Your task to perform on an android device: Open CNN.com Image 0: 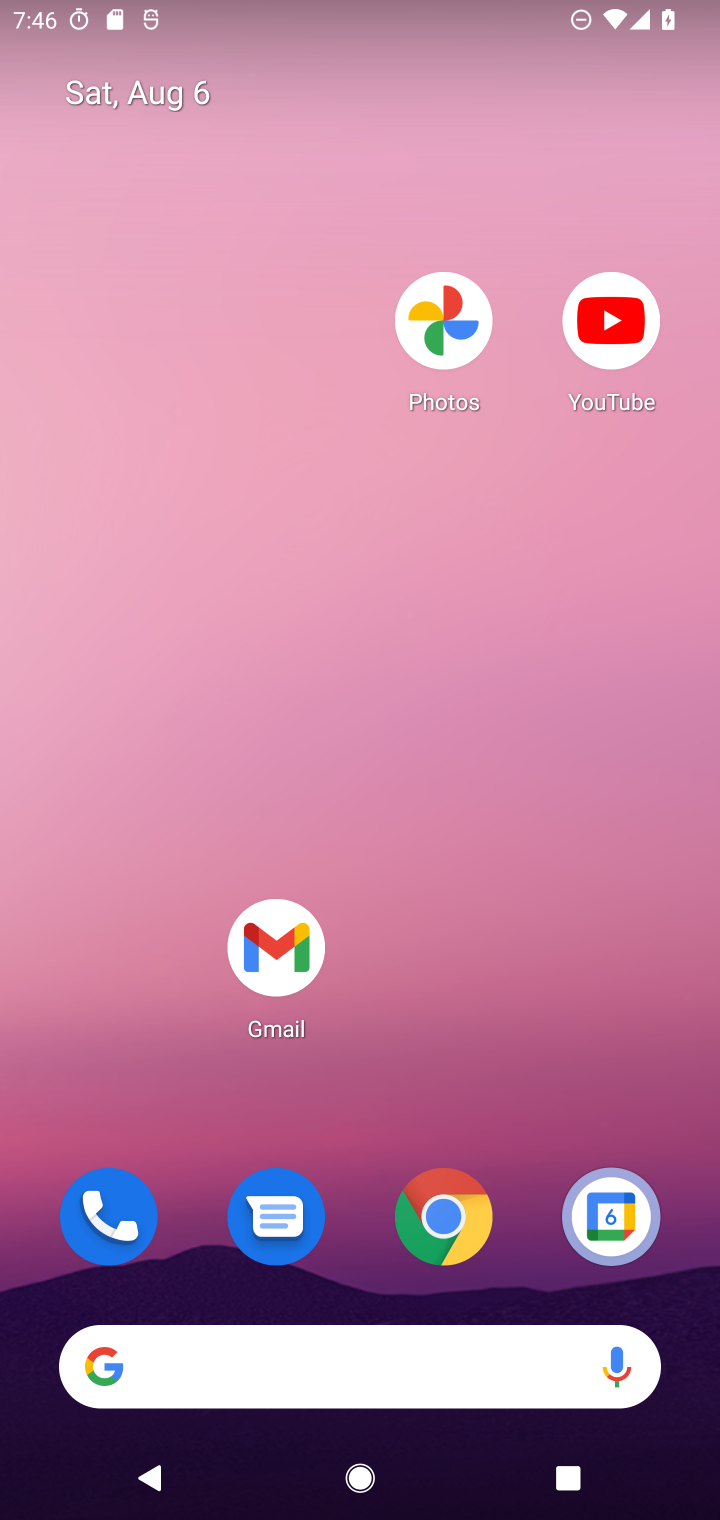
Step 0: drag from (469, 479) to (305, 41)
Your task to perform on an android device: Open CNN.com Image 1: 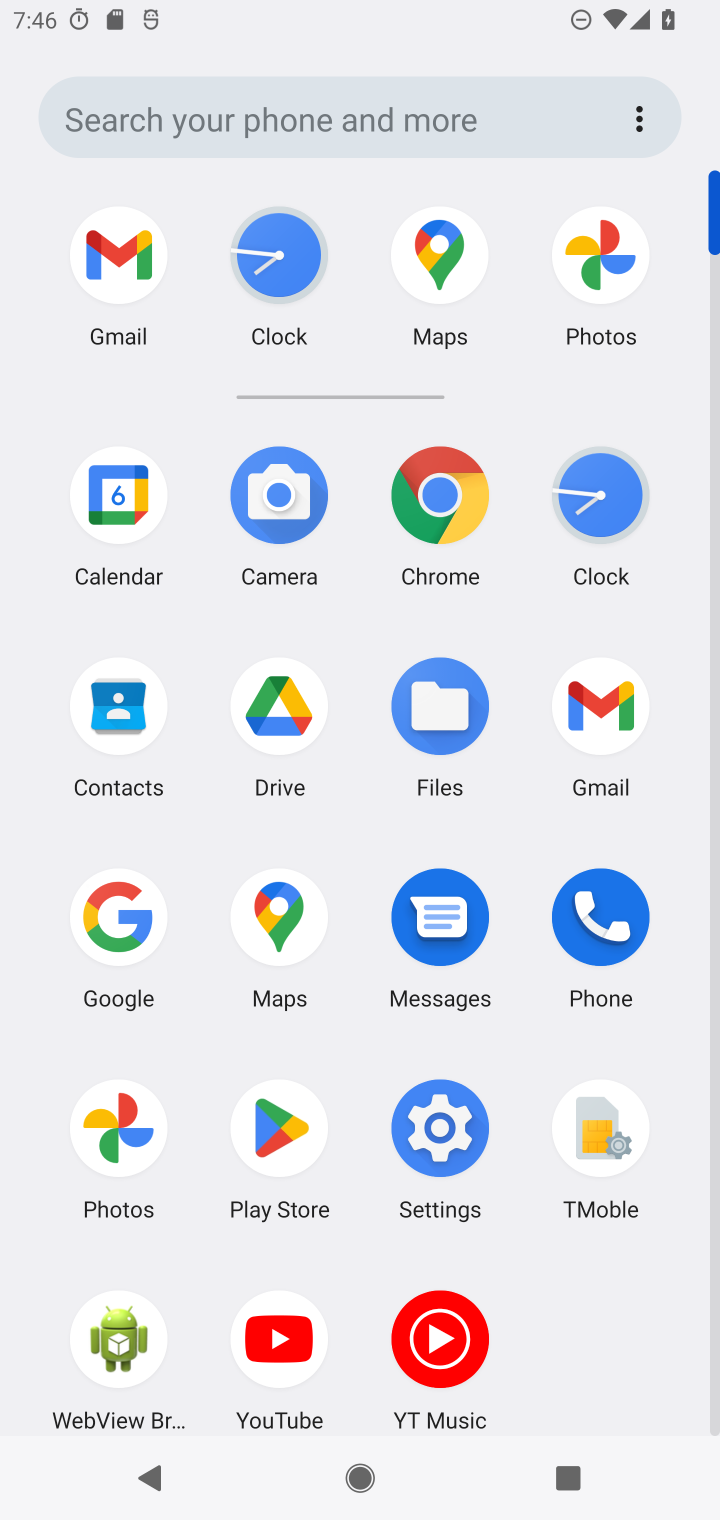
Step 1: click (441, 489)
Your task to perform on an android device: Open CNN.com Image 2: 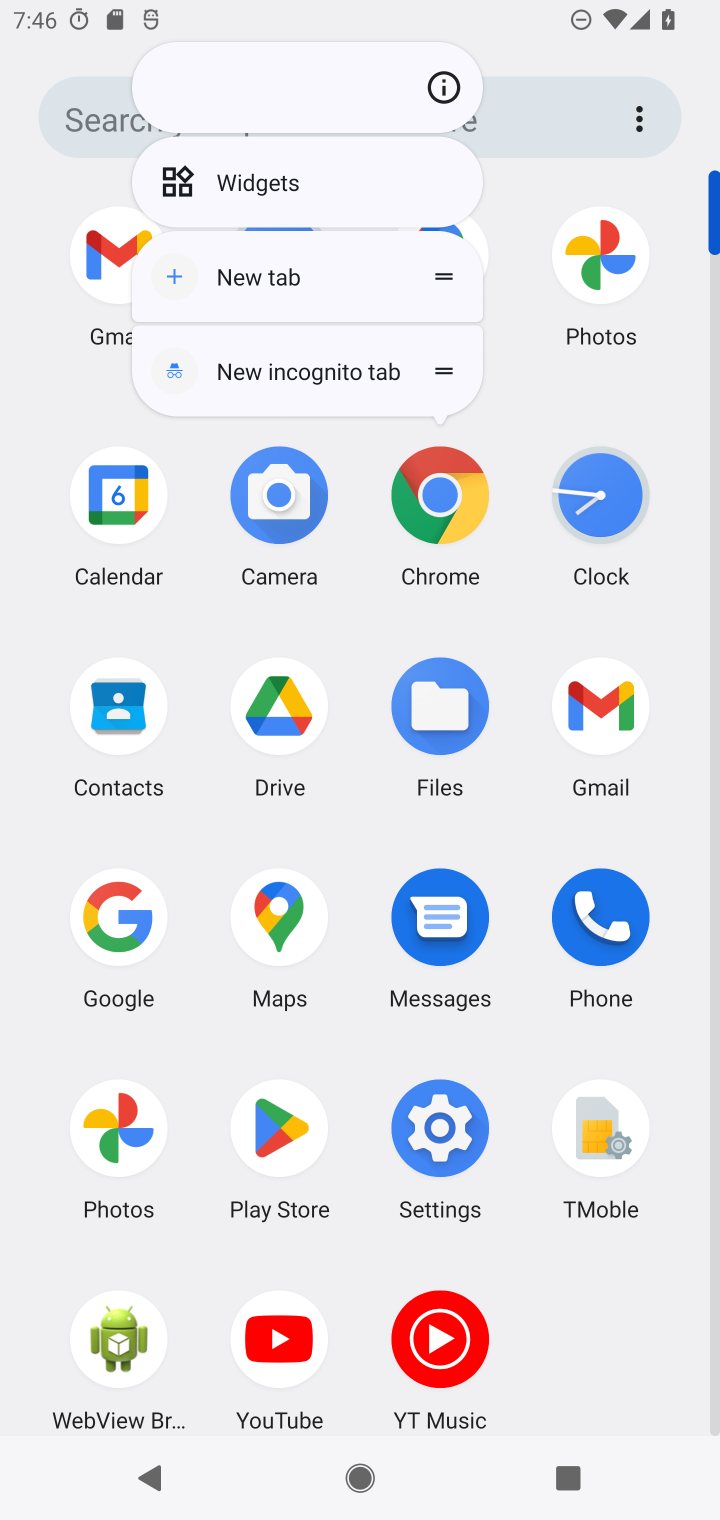
Step 2: click (444, 489)
Your task to perform on an android device: Open CNN.com Image 3: 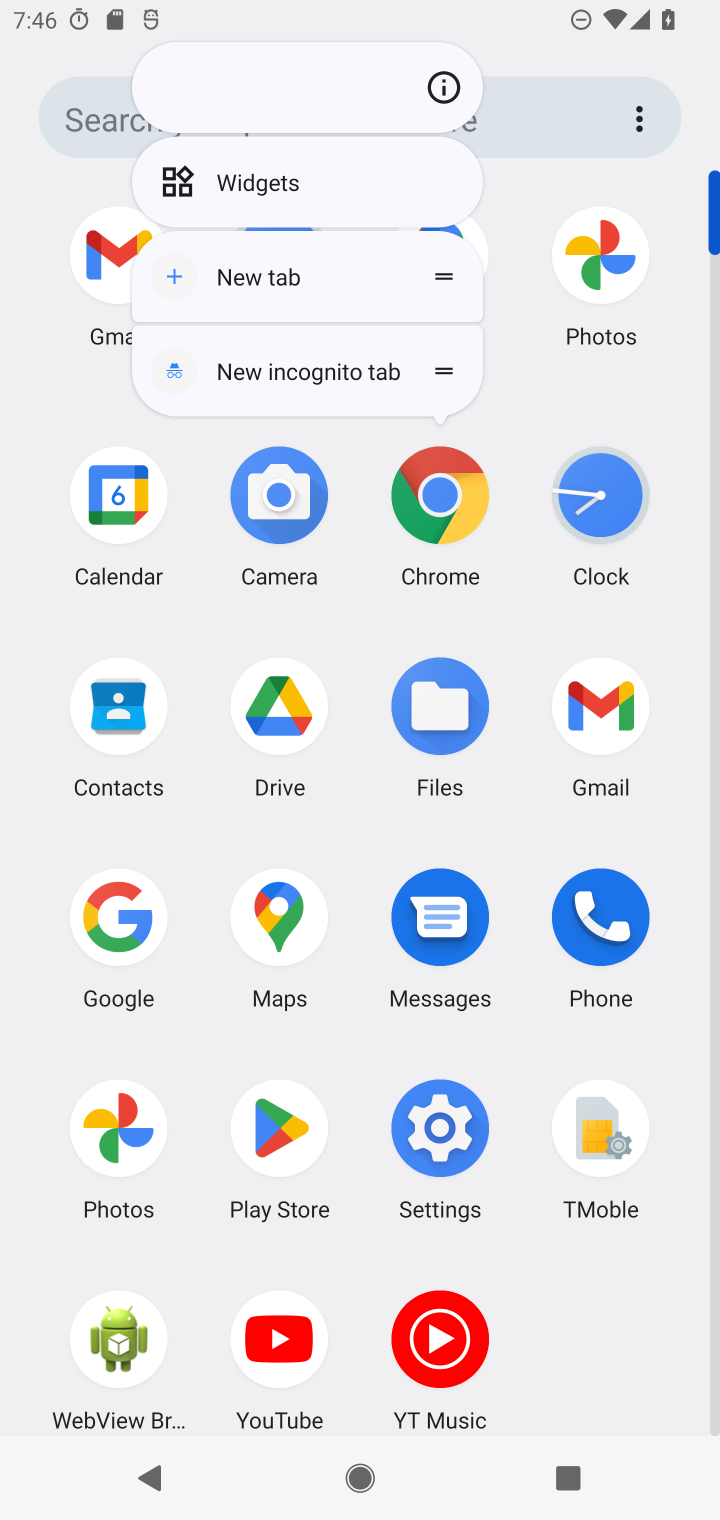
Step 3: click (434, 499)
Your task to perform on an android device: Open CNN.com Image 4: 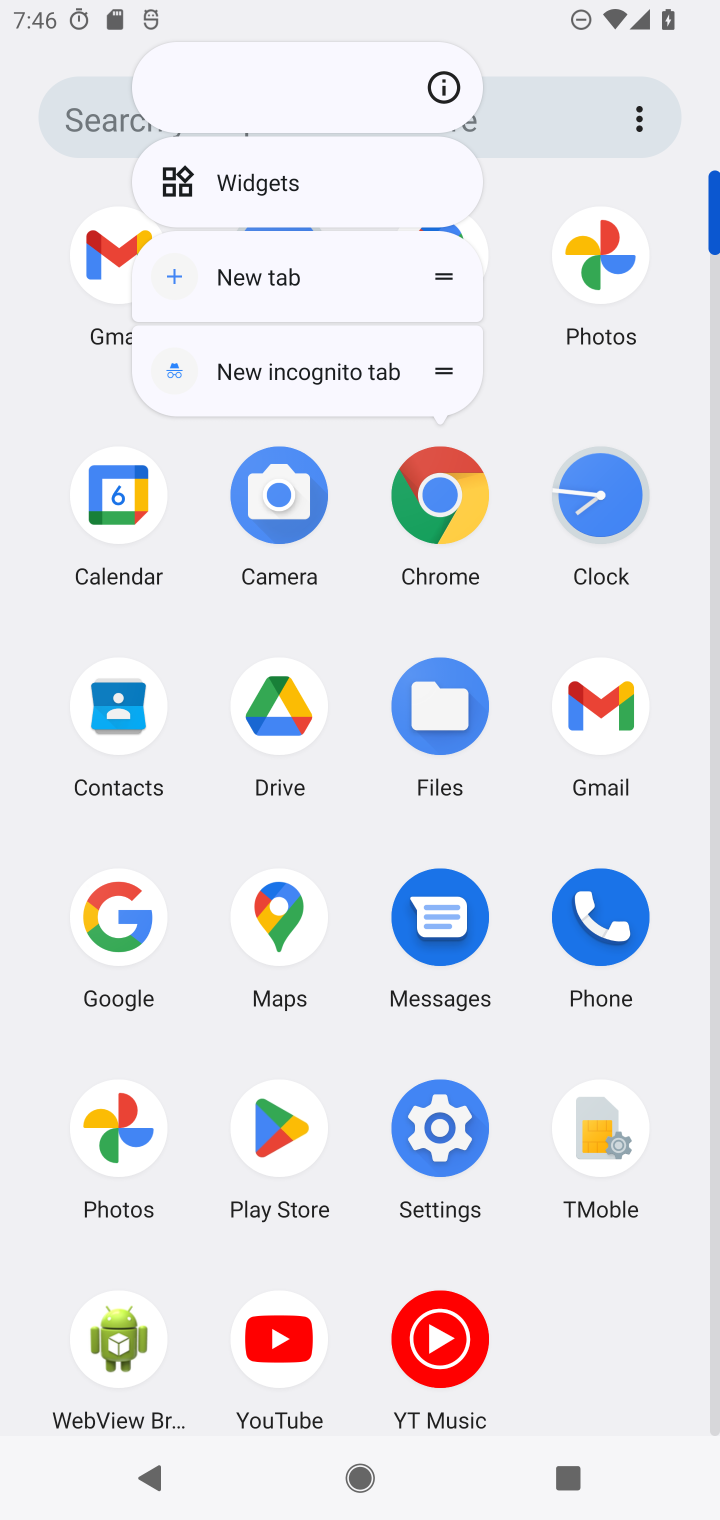
Step 4: click (522, 621)
Your task to perform on an android device: Open CNN.com Image 5: 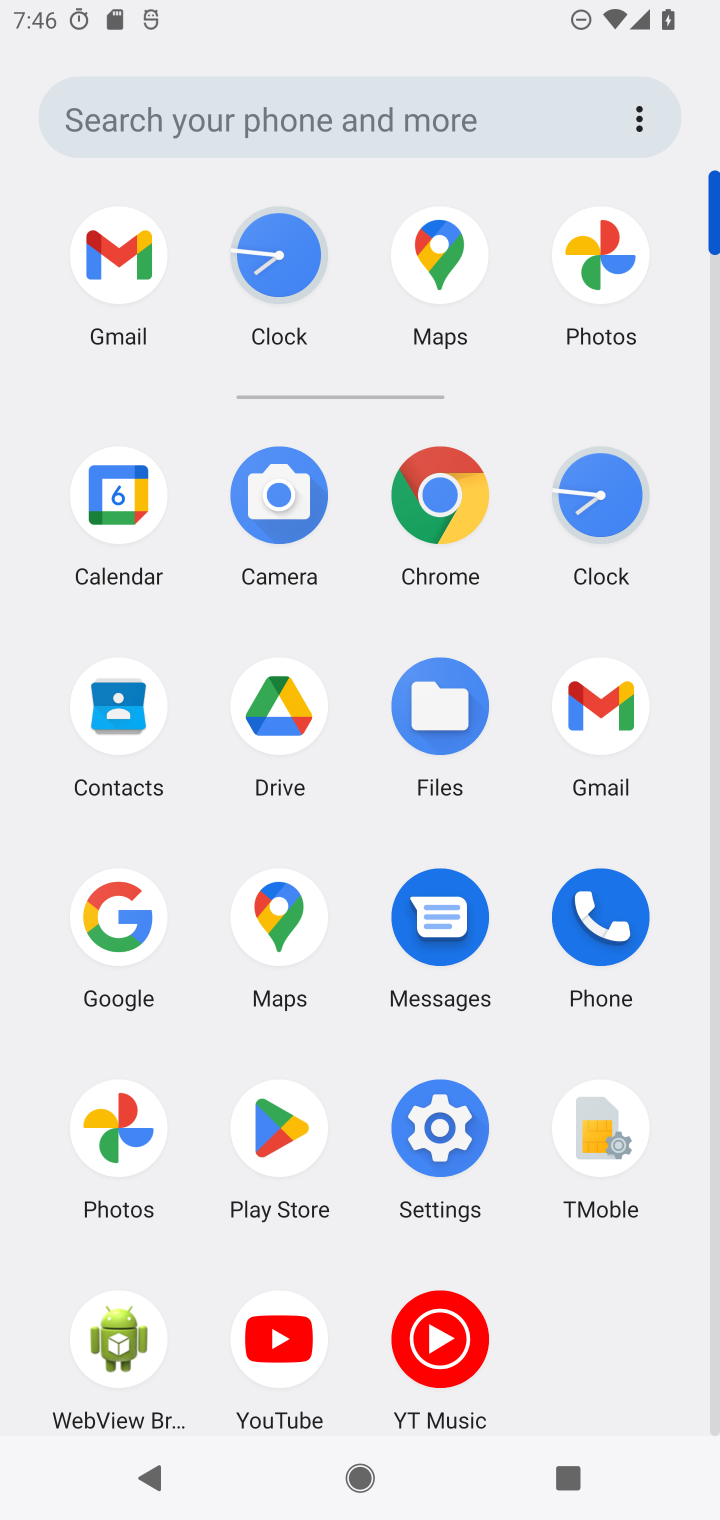
Step 5: click (436, 487)
Your task to perform on an android device: Open CNN.com Image 6: 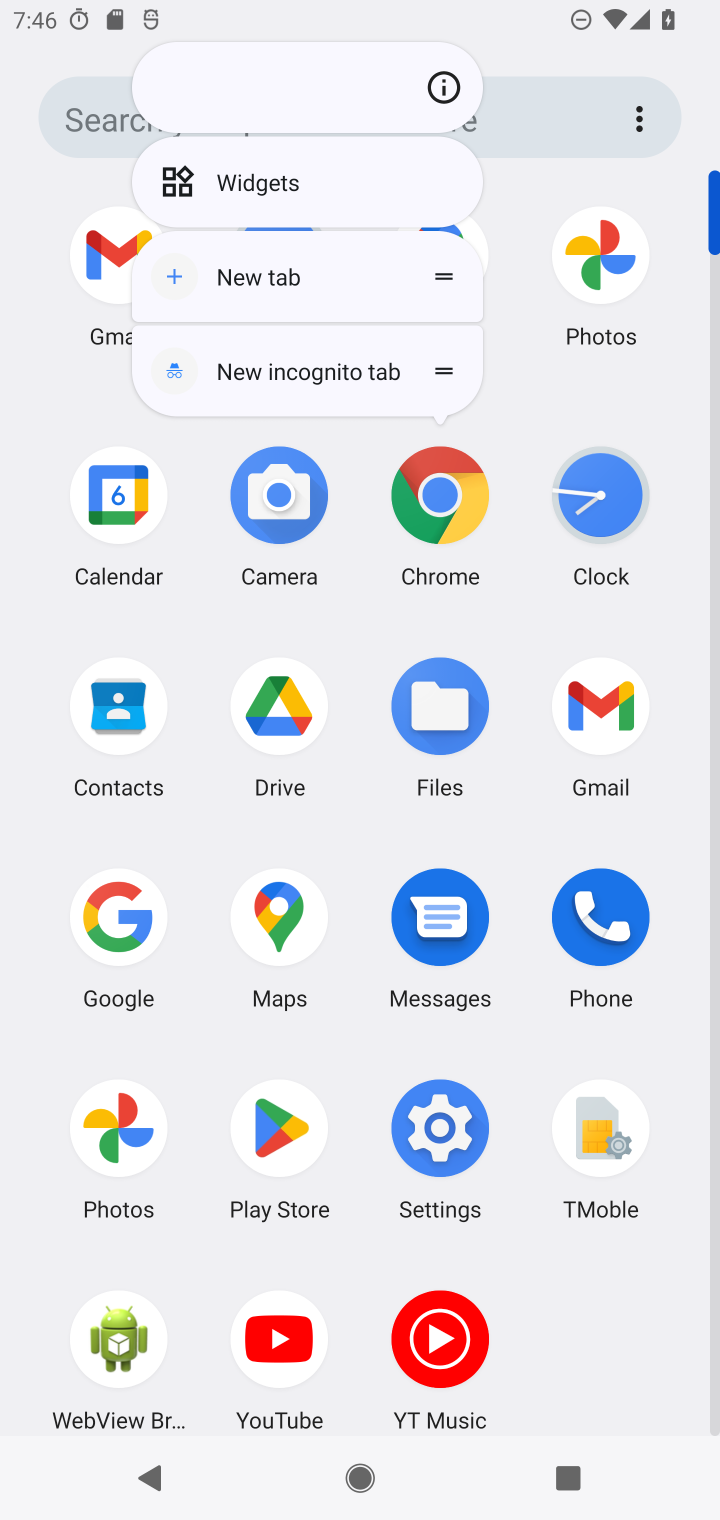
Step 6: click (436, 493)
Your task to perform on an android device: Open CNN.com Image 7: 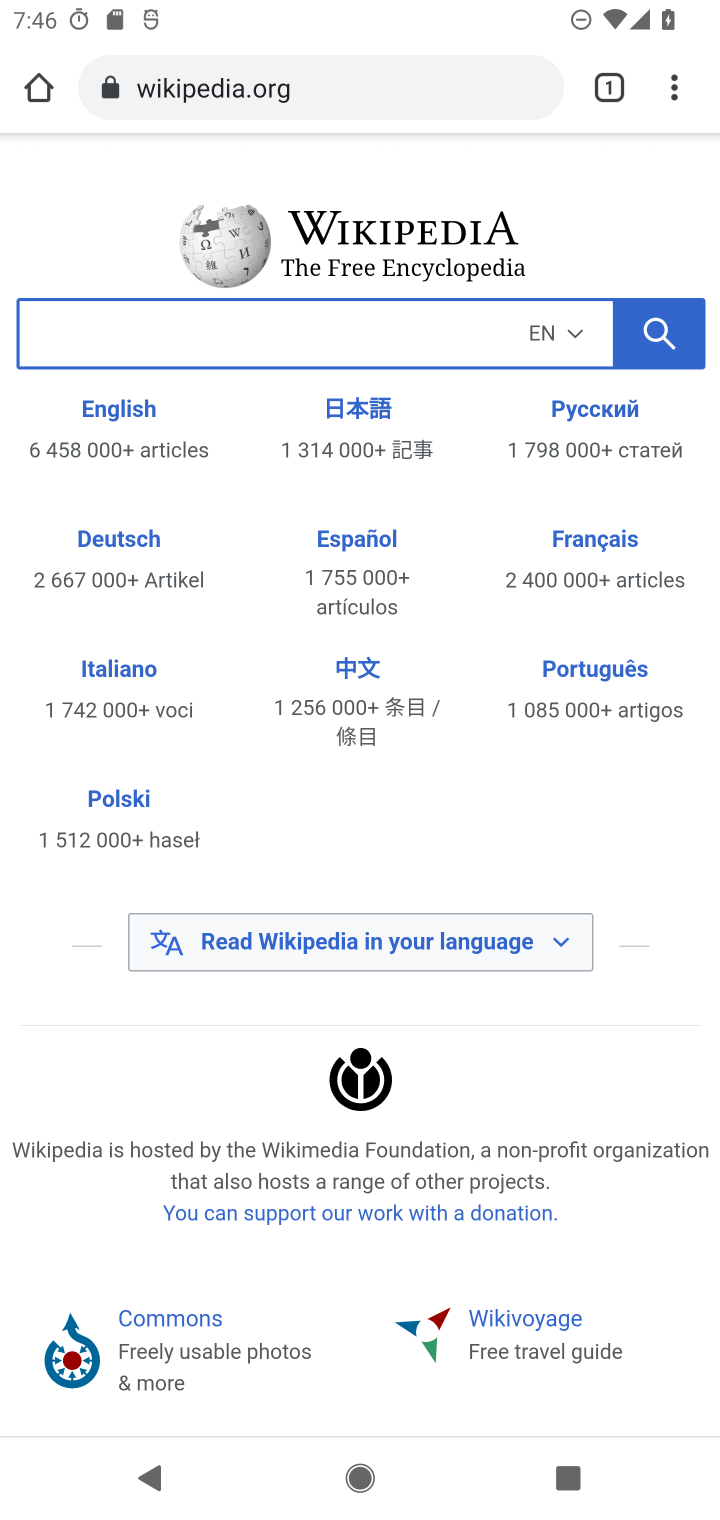
Step 7: click (423, 99)
Your task to perform on an android device: Open CNN.com Image 8: 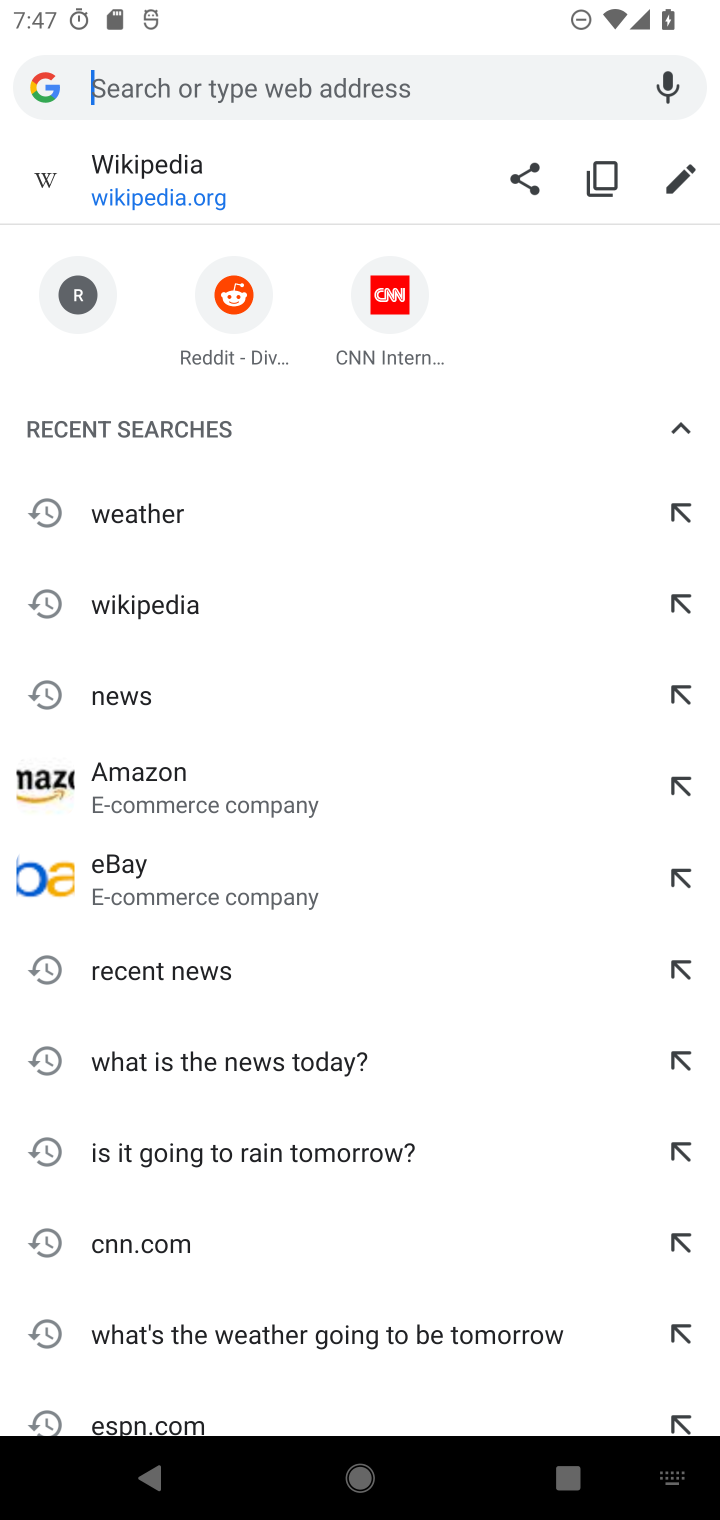
Step 8: type "CNN.com"
Your task to perform on an android device: Open CNN.com Image 9: 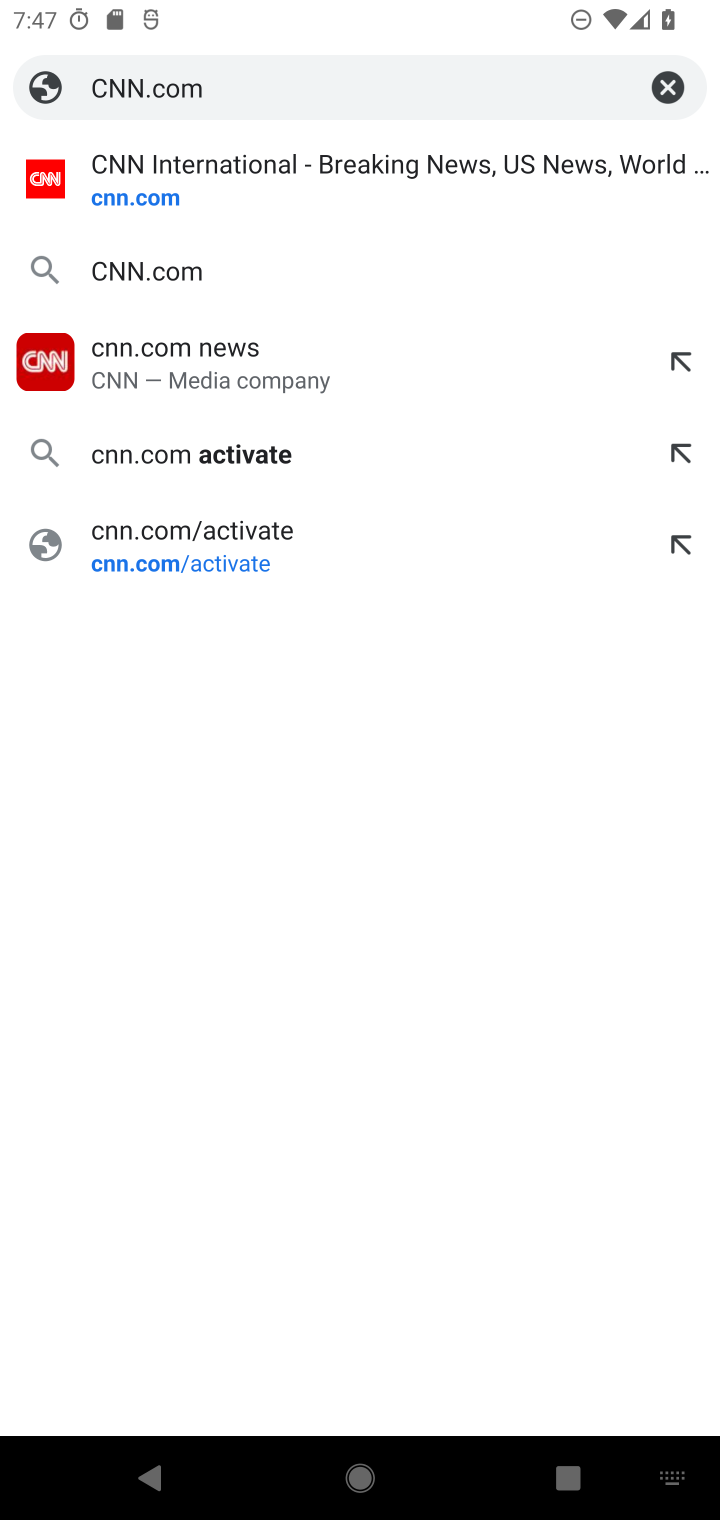
Step 9: click (111, 202)
Your task to perform on an android device: Open CNN.com Image 10: 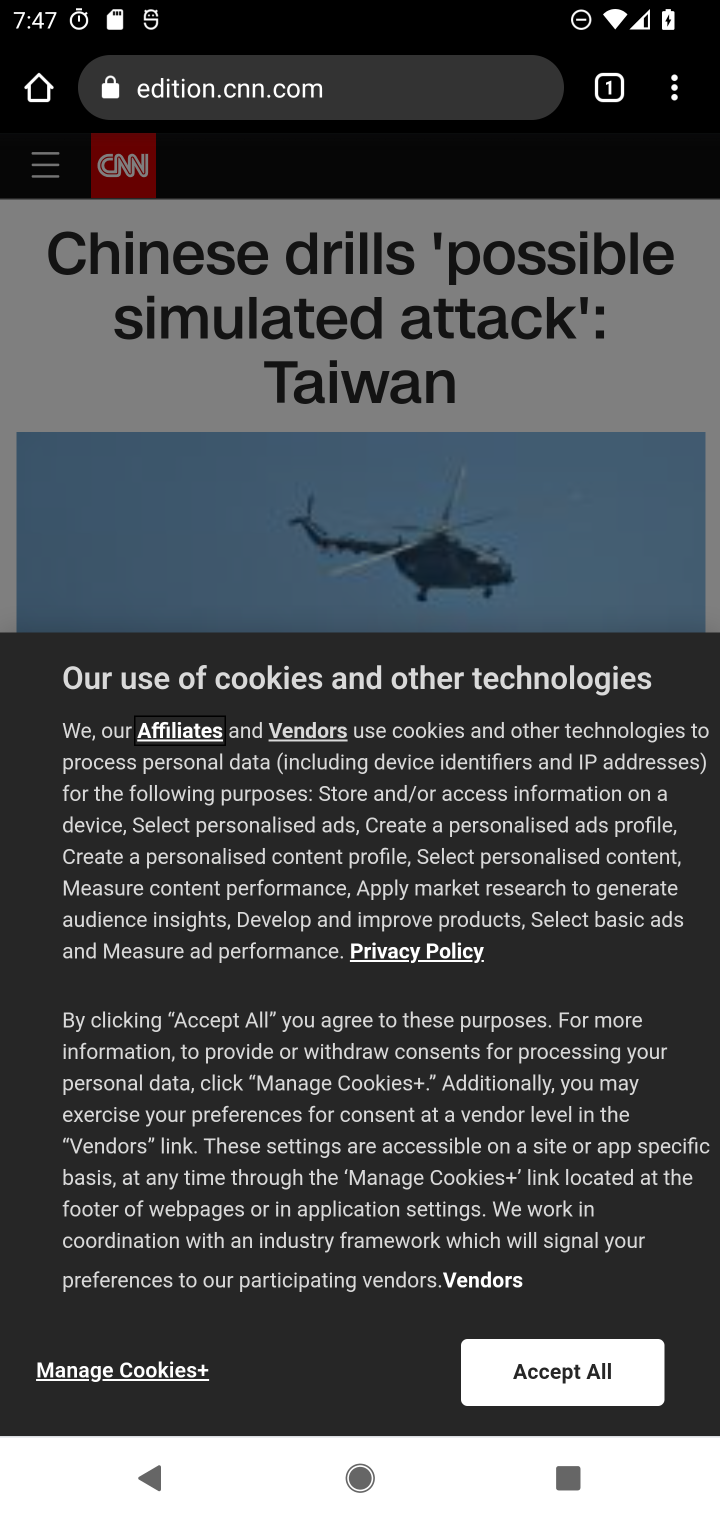
Step 10: task complete